Your task to perform on an android device: toggle javascript in the chrome app Image 0: 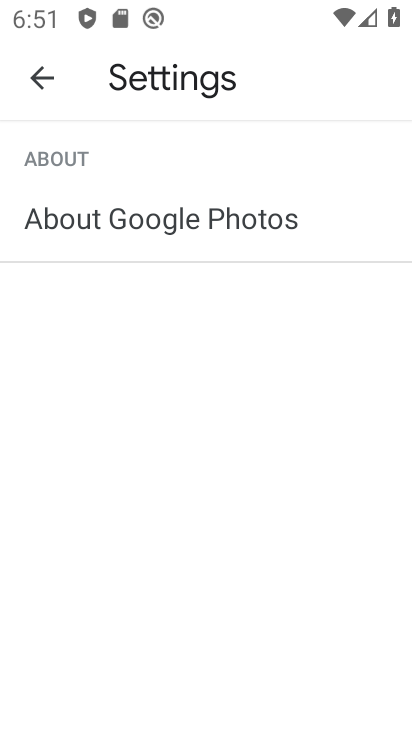
Step 0: press back button
Your task to perform on an android device: toggle javascript in the chrome app Image 1: 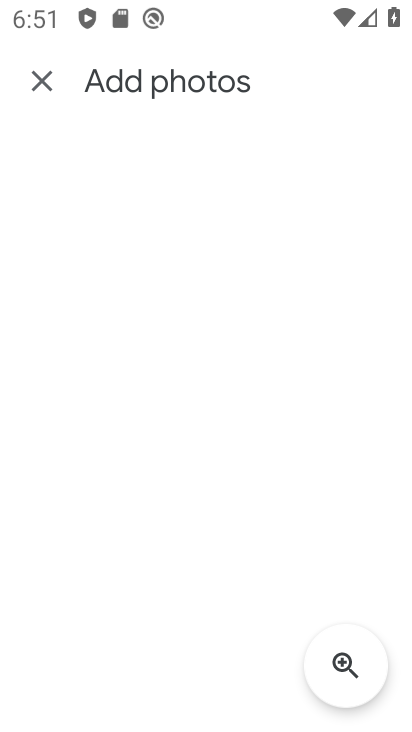
Step 1: press back button
Your task to perform on an android device: toggle javascript in the chrome app Image 2: 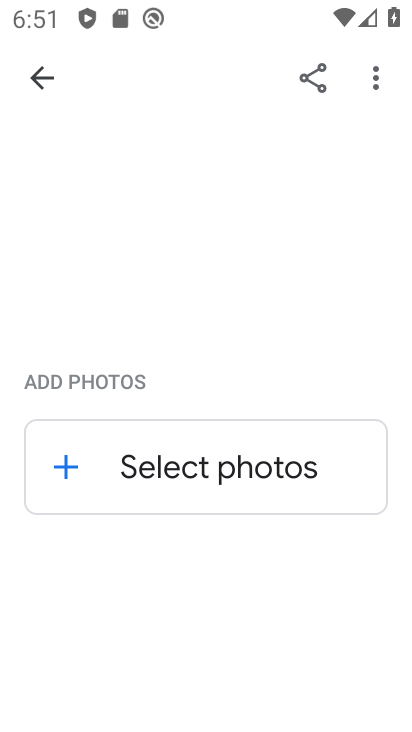
Step 2: press home button
Your task to perform on an android device: toggle javascript in the chrome app Image 3: 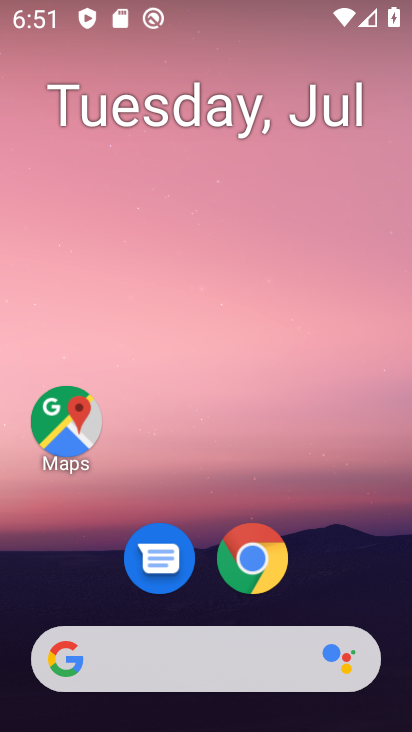
Step 3: click (229, 556)
Your task to perform on an android device: toggle javascript in the chrome app Image 4: 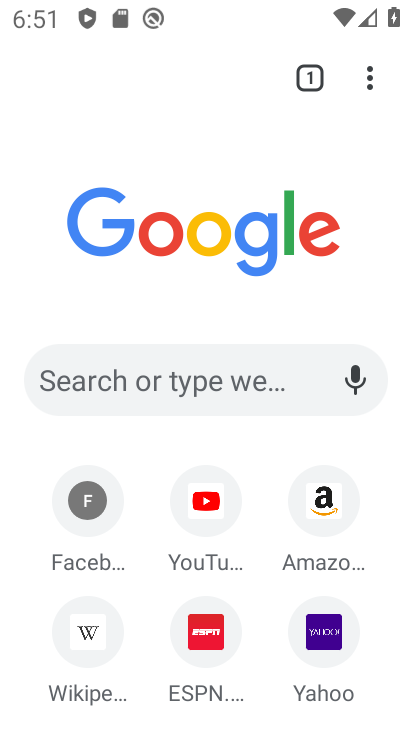
Step 4: drag from (362, 71) to (106, 615)
Your task to perform on an android device: toggle javascript in the chrome app Image 5: 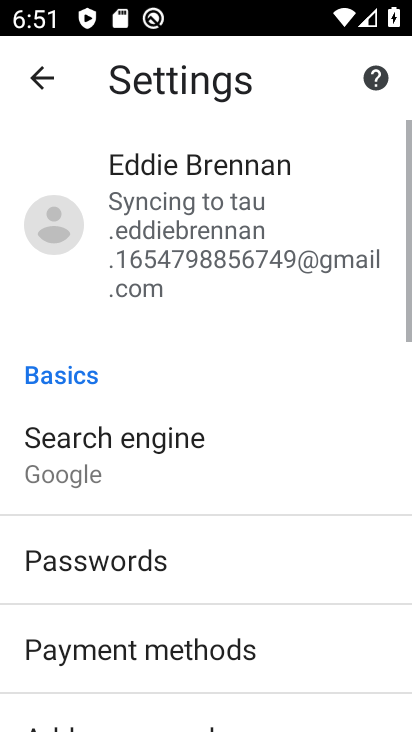
Step 5: drag from (204, 614) to (377, 9)
Your task to perform on an android device: toggle javascript in the chrome app Image 6: 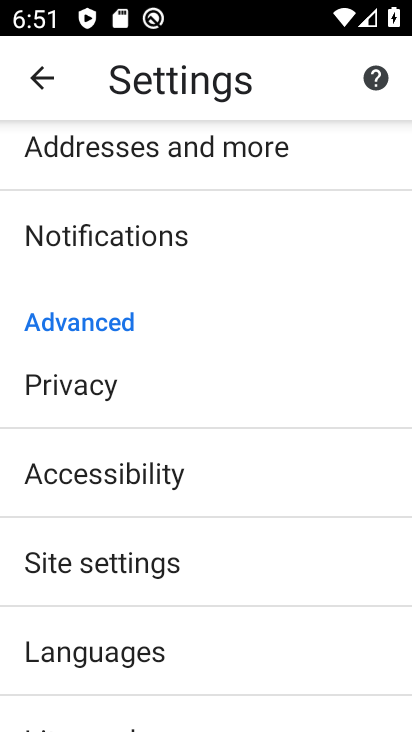
Step 6: click (134, 553)
Your task to perform on an android device: toggle javascript in the chrome app Image 7: 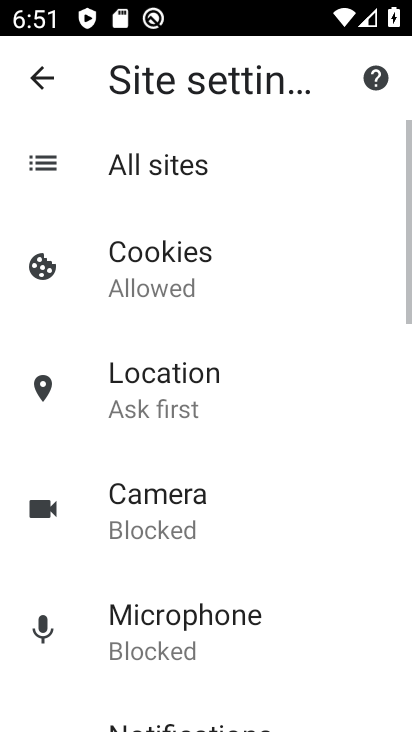
Step 7: drag from (120, 636) to (210, 146)
Your task to perform on an android device: toggle javascript in the chrome app Image 8: 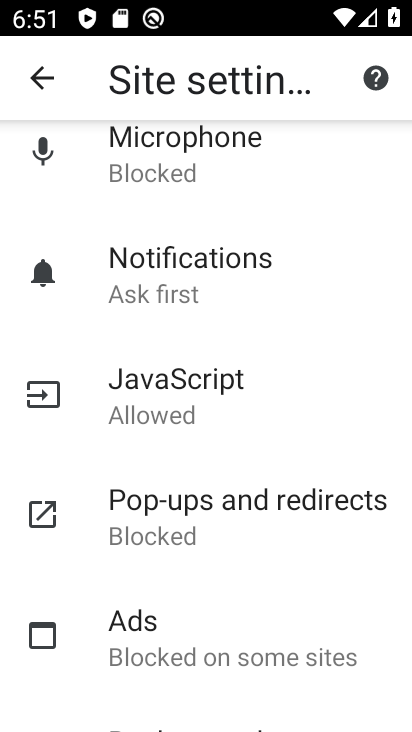
Step 8: click (197, 389)
Your task to perform on an android device: toggle javascript in the chrome app Image 9: 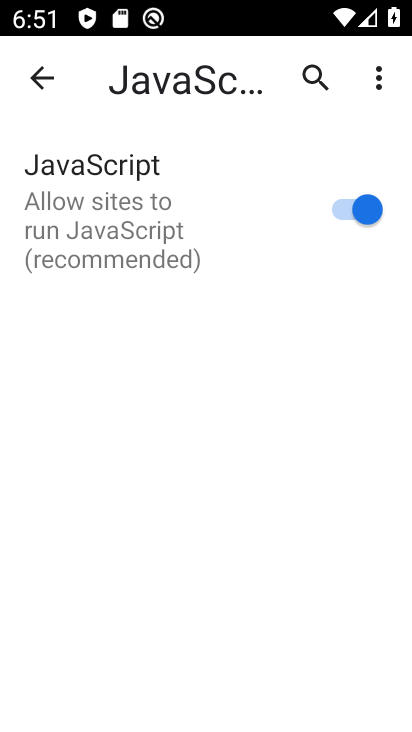
Step 9: click (359, 214)
Your task to perform on an android device: toggle javascript in the chrome app Image 10: 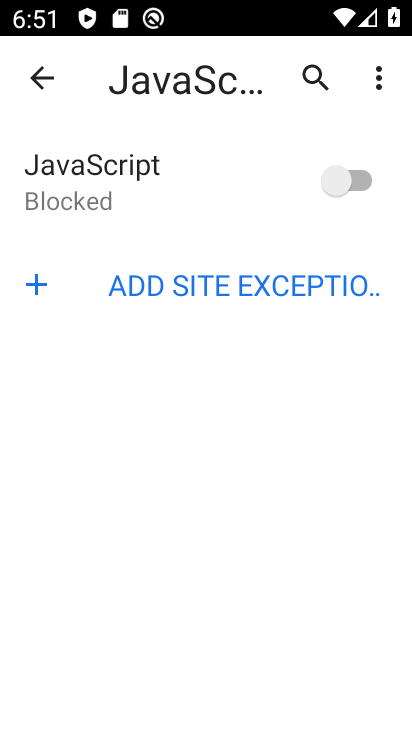
Step 10: task complete